Your task to perform on an android device: Open sound settings Image 0: 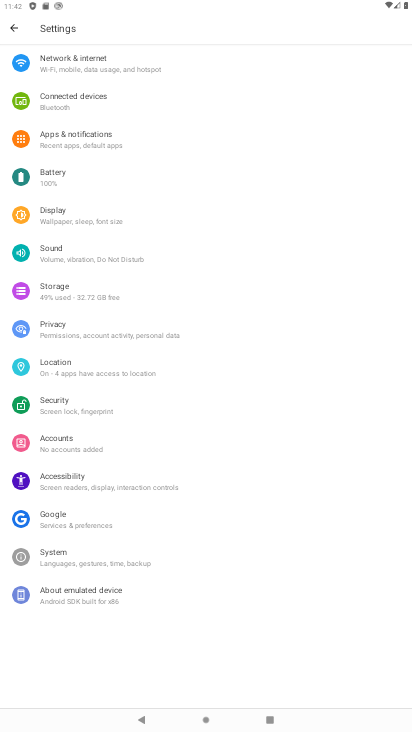
Step 0: press home button
Your task to perform on an android device: Open sound settings Image 1: 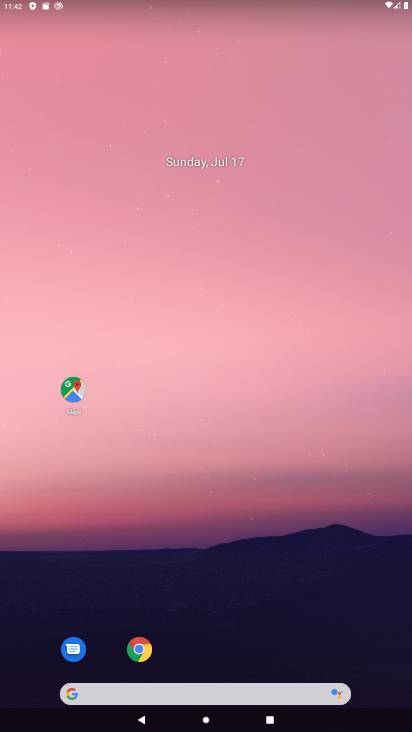
Step 1: drag from (81, 539) to (168, 193)
Your task to perform on an android device: Open sound settings Image 2: 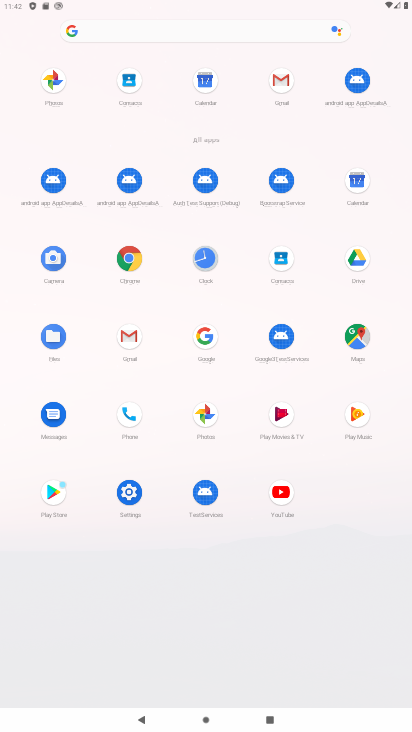
Step 2: click (132, 485)
Your task to perform on an android device: Open sound settings Image 3: 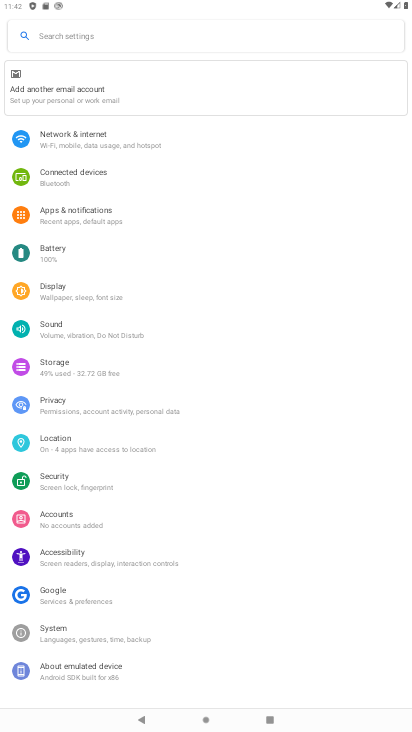
Step 3: click (60, 320)
Your task to perform on an android device: Open sound settings Image 4: 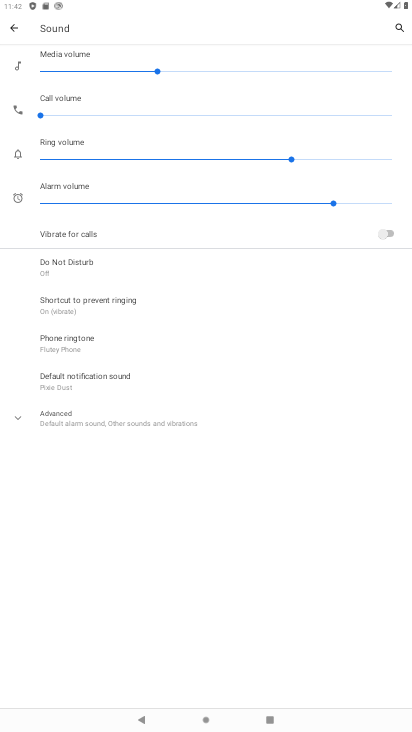
Step 4: task complete